Your task to perform on an android device: Go to ESPN.com Image 0: 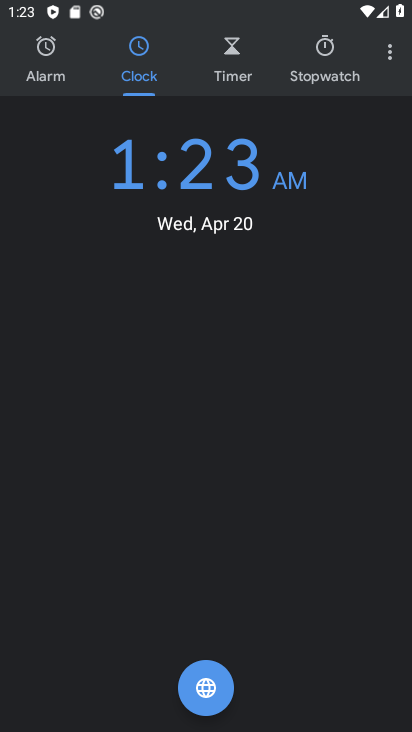
Step 0: press home button
Your task to perform on an android device: Go to ESPN.com Image 1: 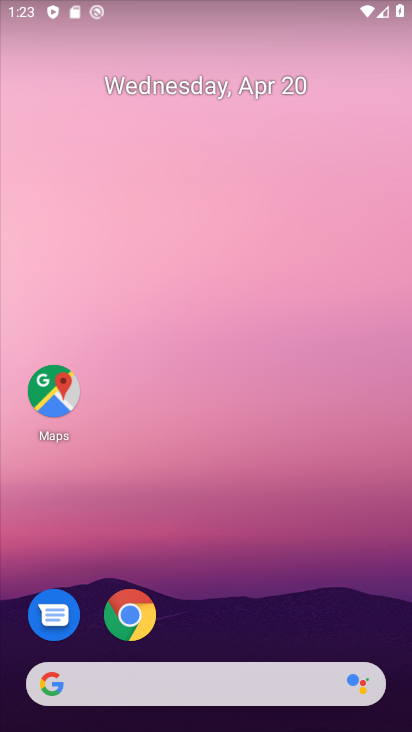
Step 1: click (121, 606)
Your task to perform on an android device: Go to ESPN.com Image 2: 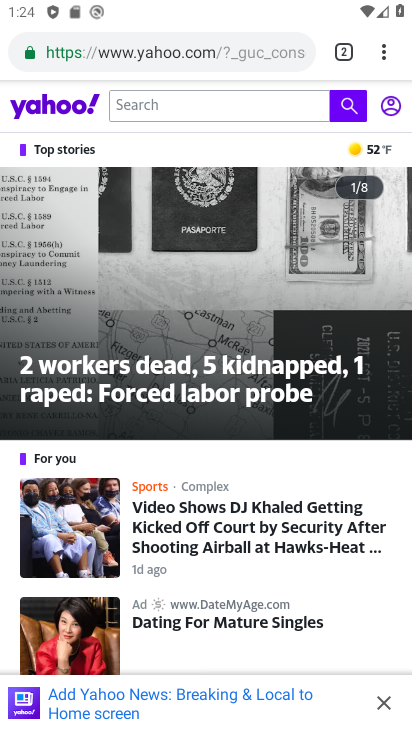
Step 2: click (192, 55)
Your task to perform on an android device: Go to ESPN.com Image 3: 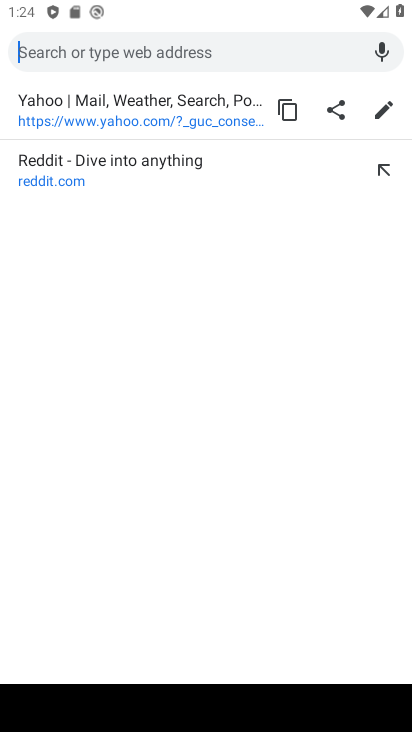
Step 3: type "espn.com"
Your task to perform on an android device: Go to ESPN.com Image 4: 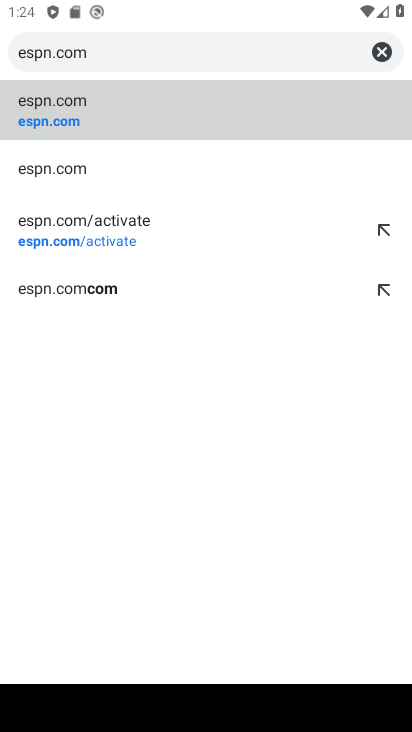
Step 4: click (79, 107)
Your task to perform on an android device: Go to ESPN.com Image 5: 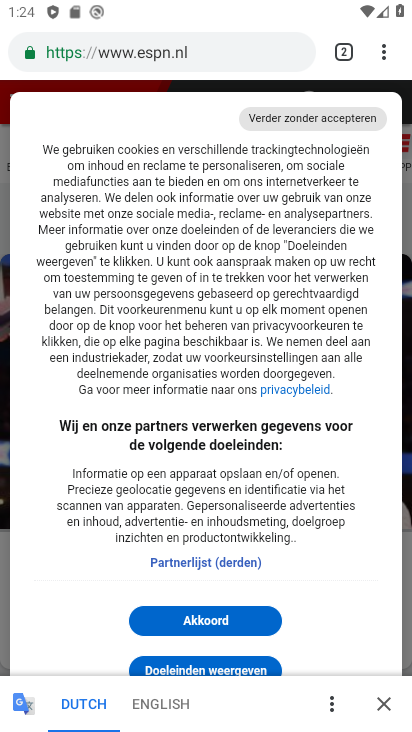
Step 5: task complete